Your task to perform on an android device: turn on location history Image 0: 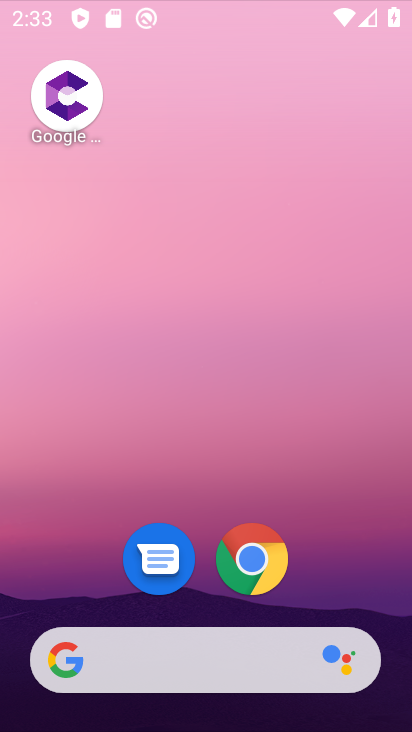
Step 0: click (233, 62)
Your task to perform on an android device: turn on location history Image 1: 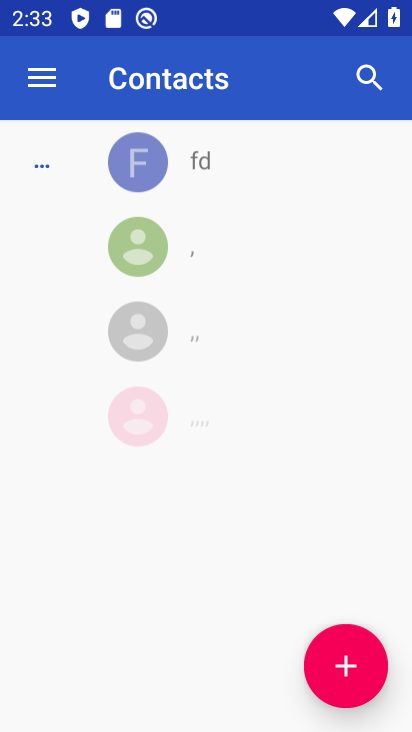
Step 1: press home button
Your task to perform on an android device: turn on location history Image 2: 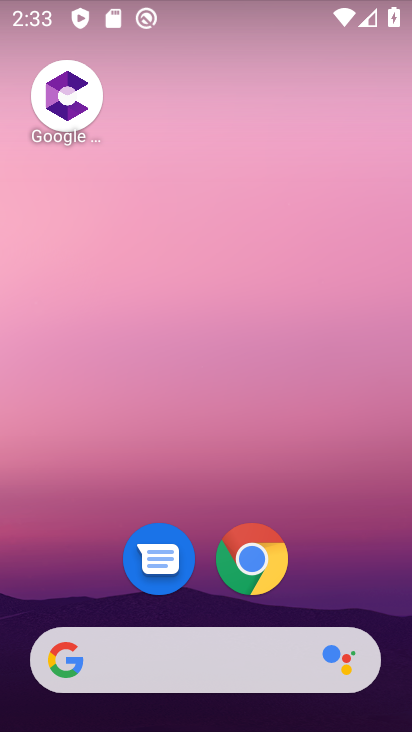
Step 2: drag from (223, 727) to (224, 84)
Your task to perform on an android device: turn on location history Image 3: 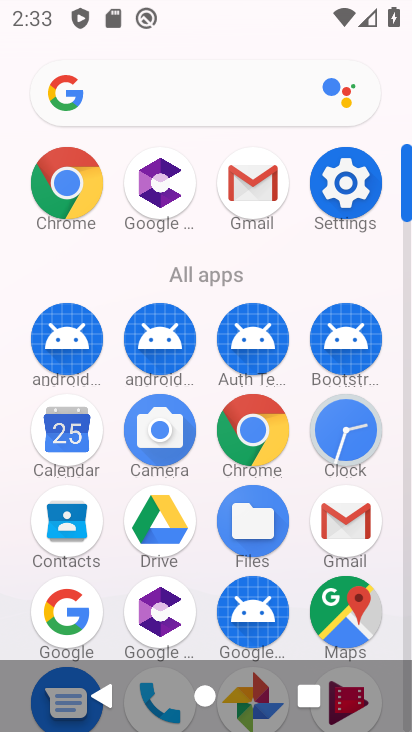
Step 3: click (330, 191)
Your task to perform on an android device: turn on location history Image 4: 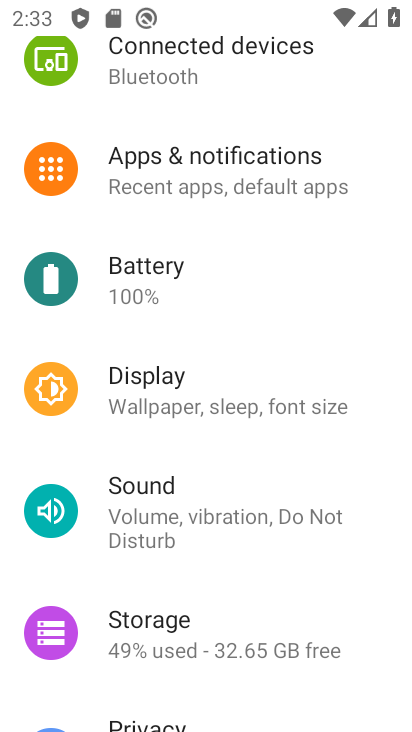
Step 4: drag from (166, 658) to (167, 321)
Your task to perform on an android device: turn on location history Image 5: 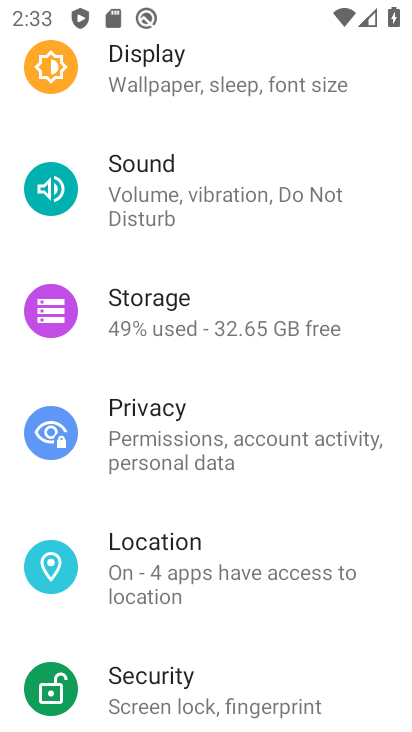
Step 5: click (143, 556)
Your task to perform on an android device: turn on location history Image 6: 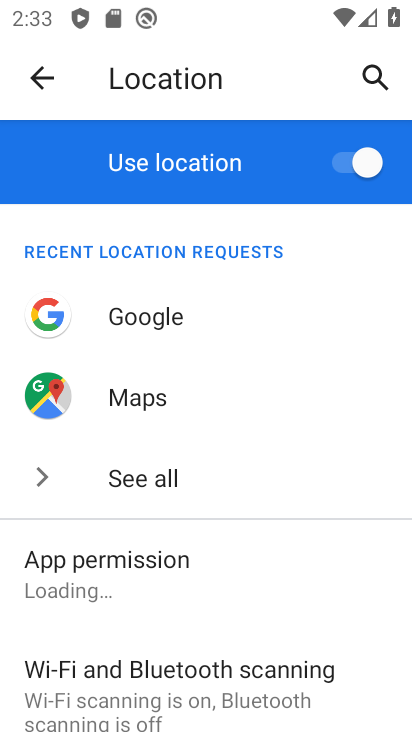
Step 6: drag from (195, 653) to (189, 261)
Your task to perform on an android device: turn on location history Image 7: 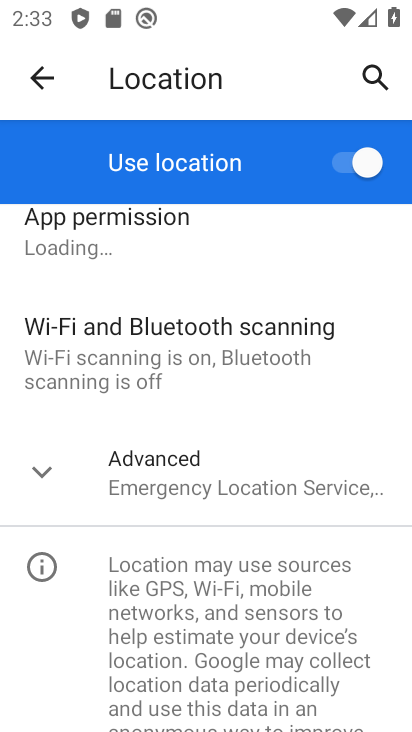
Step 7: click (153, 461)
Your task to perform on an android device: turn on location history Image 8: 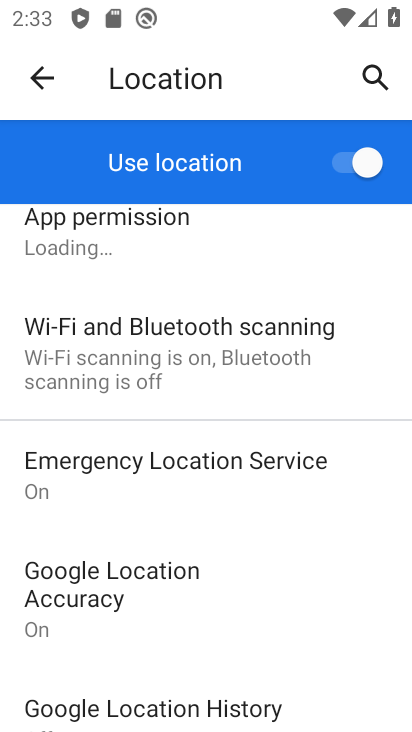
Step 8: click (136, 709)
Your task to perform on an android device: turn on location history Image 9: 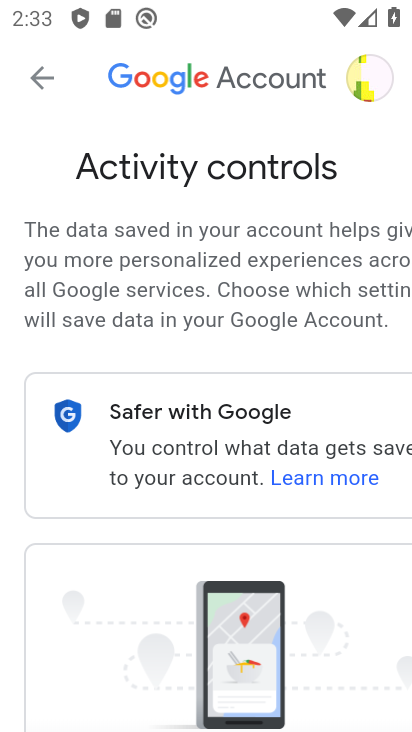
Step 9: task complete